Your task to perform on an android device: turn off data saver in the chrome app Image 0: 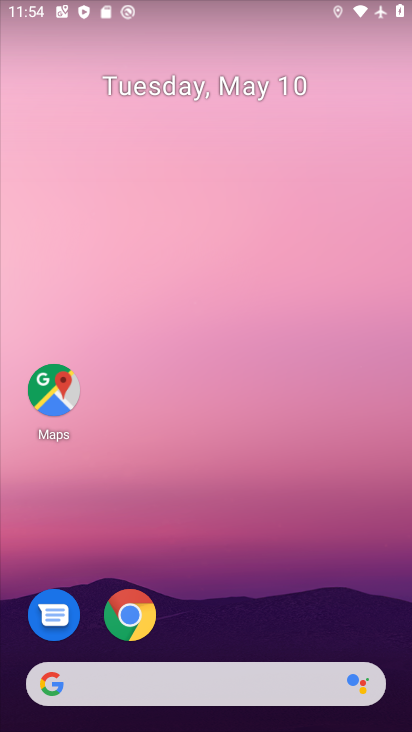
Step 0: drag from (287, 570) to (261, 5)
Your task to perform on an android device: turn off data saver in the chrome app Image 1: 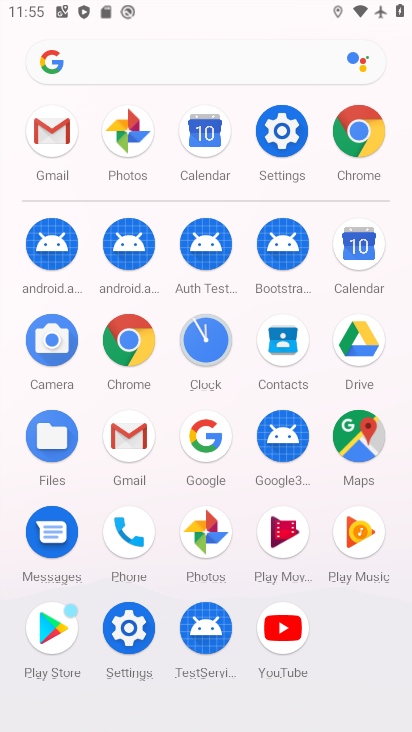
Step 1: click (127, 336)
Your task to perform on an android device: turn off data saver in the chrome app Image 2: 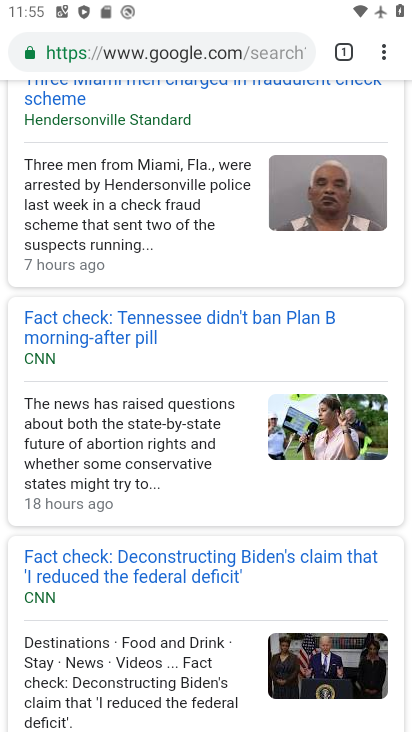
Step 2: drag from (174, 153) to (177, 562)
Your task to perform on an android device: turn off data saver in the chrome app Image 3: 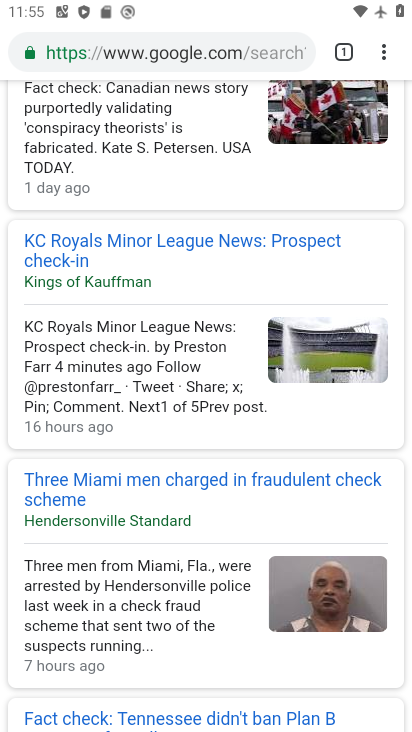
Step 3: drag from (197, 217) to (202, 494)
Your task to perform on an android device: turn off data saver in the chrome app Image 4: 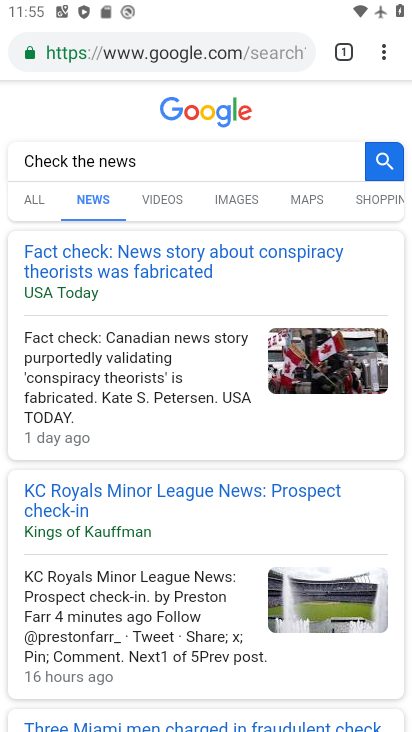
Step 4: drag from (380, 48) to (216, 577)
Your task to perform on an android device: turn off data saver in the chrome app Image 5: 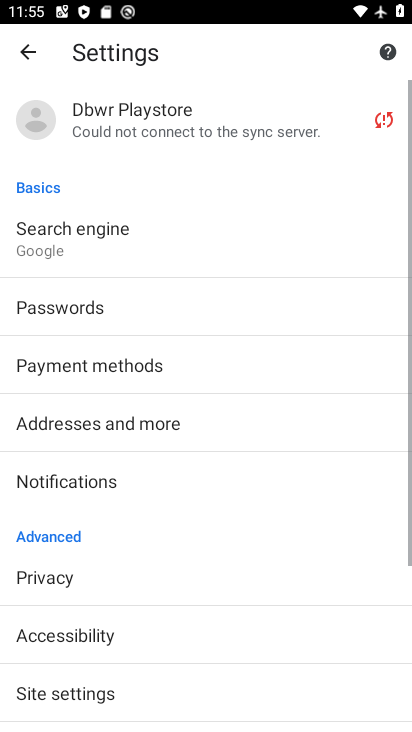
Step 5: drag from (211, 612) to (262, 158)
Your task to perform on an android device: turn off data saver in the chrome app Image 6: 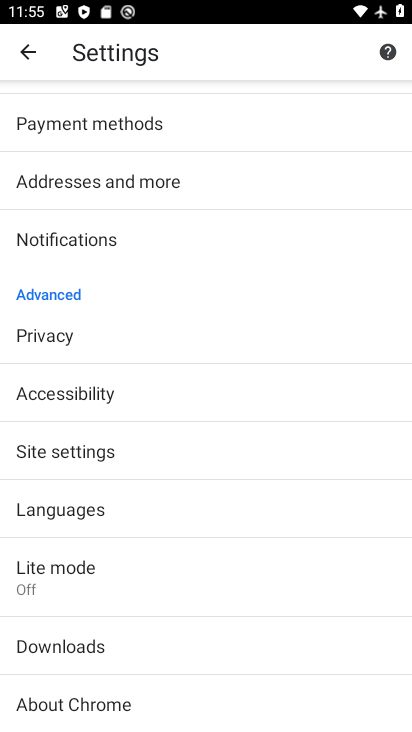
Step 6: click (190, 574)
Your task to perform on an android device: turn off data saver in the chrome app Image 7: 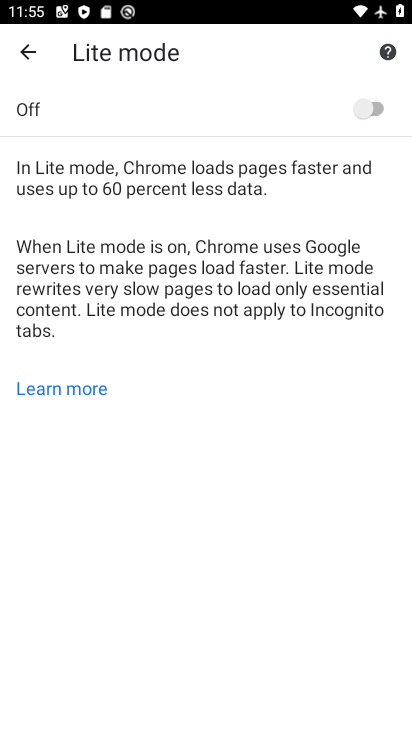
Step 7: task complete